Your task to perform on an android device: manage bookmarks in the chrome app Image 0: 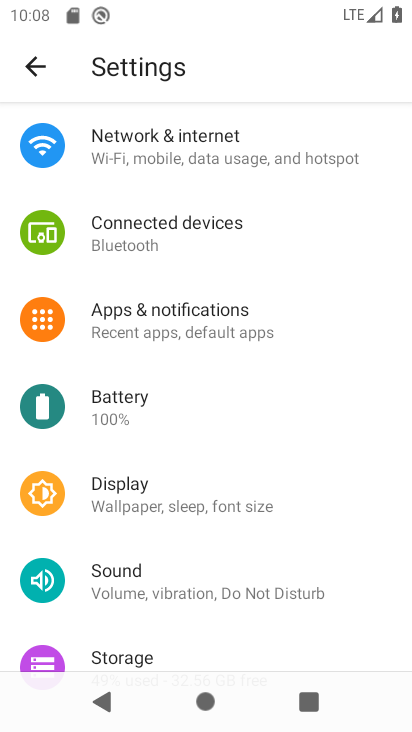
Step 0: press home button
Your task to perform on an android device: manage bookmarks in the chrome app Image 1: 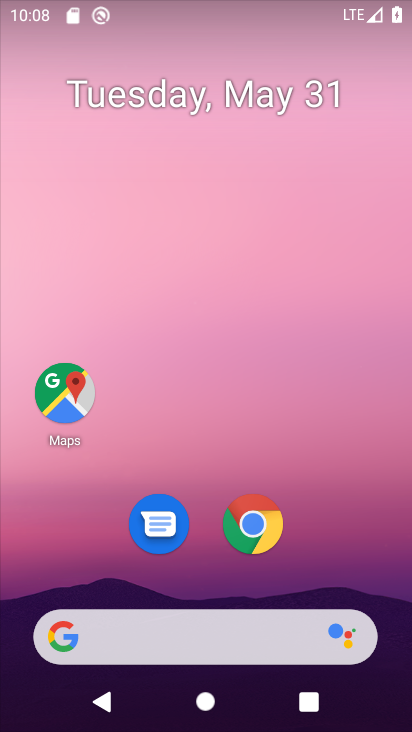
Step 1: click (264, 540)
Your task to perform on an android device: manage bookmarks in the chrome app Image 2: 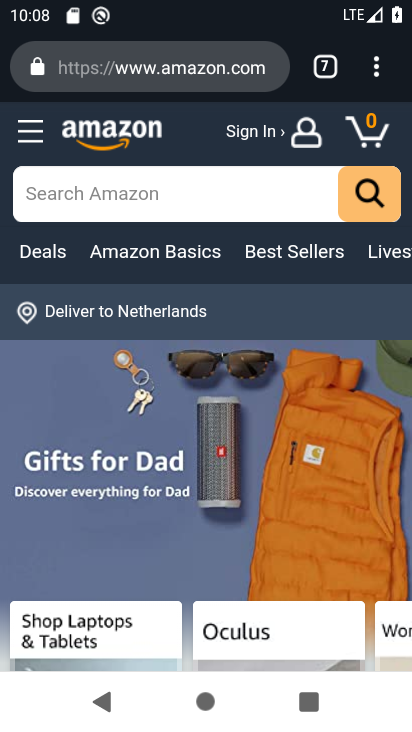
Step 2: click (380, 64)
Your task to perform on an android device: manage bookmarks in the chrome app Image 3: 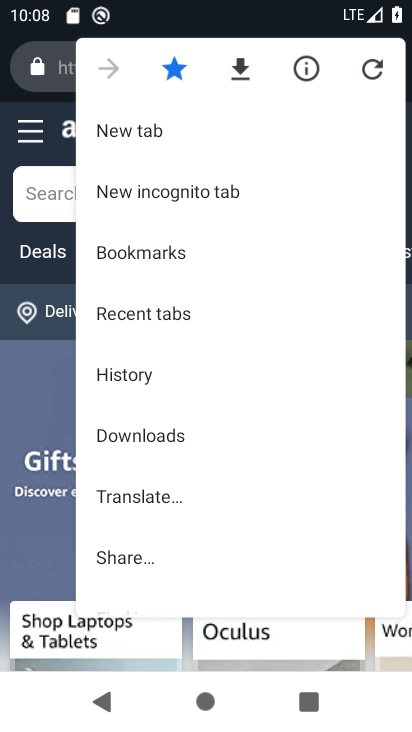
Step 3: click (182, 251)
Your task to perform on an android device: manage bookmarks in the chrome app Image 4: 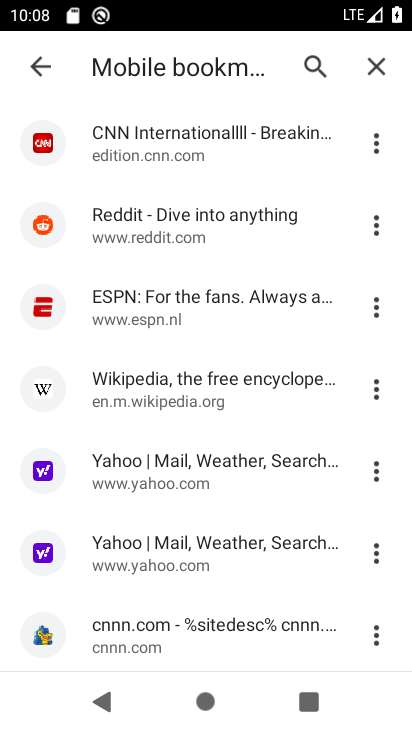
Step 4: click (376, 391)
Your task to perform on an android device: manage bookmarks in the chrome app Image 5: 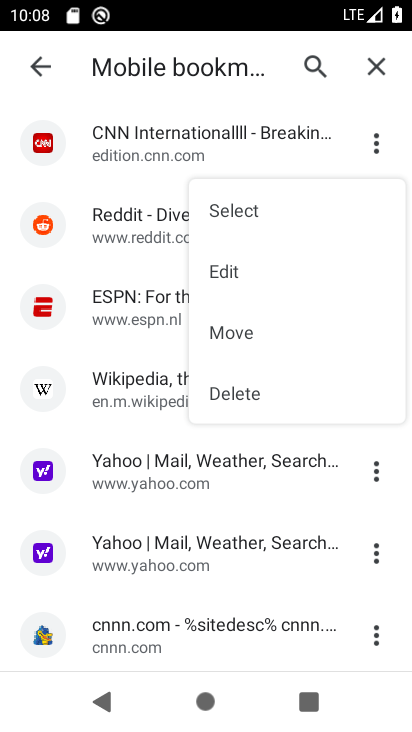
Step 5: click (258, 267)
Your task to perform on an android device: manage bookmarks in the chrome app Image 6: 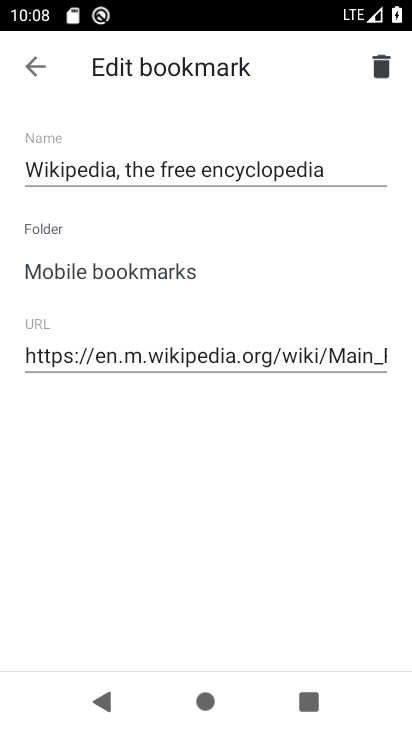
Step 6: click (35, 57)
Your task to perform on an android device: manage bookmarks in the chrome app Image 7: 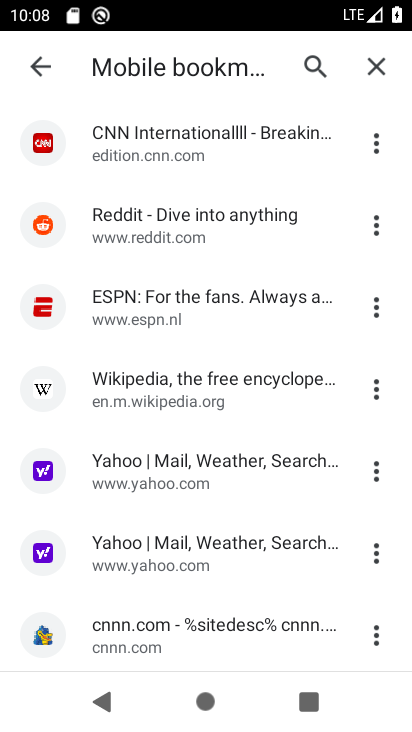
Step 7: task complete